Your task to perform on an android device: check android version Image 0: 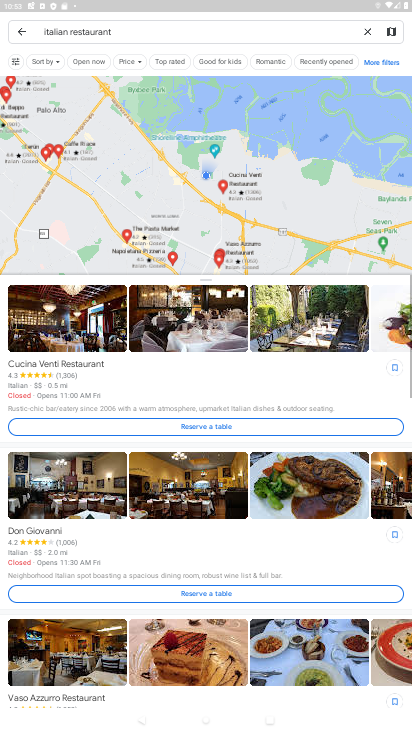
Step 0: press home button
Your task to perform on an android device: check android version Image 1: 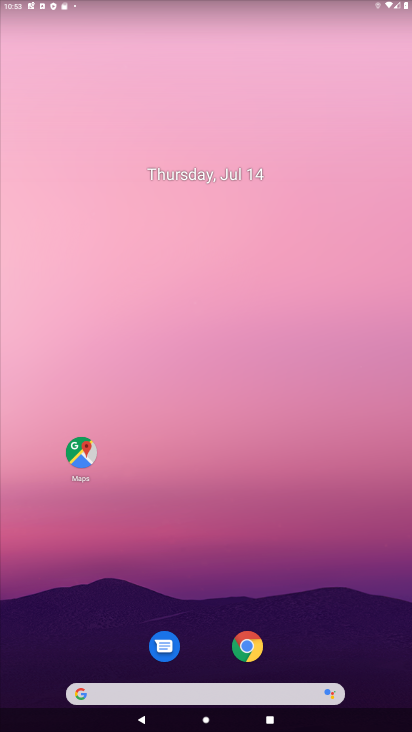
Step 1: drag from (203, 663) to (176, 214)
Your task to perform on an android device: check android version Image 2: 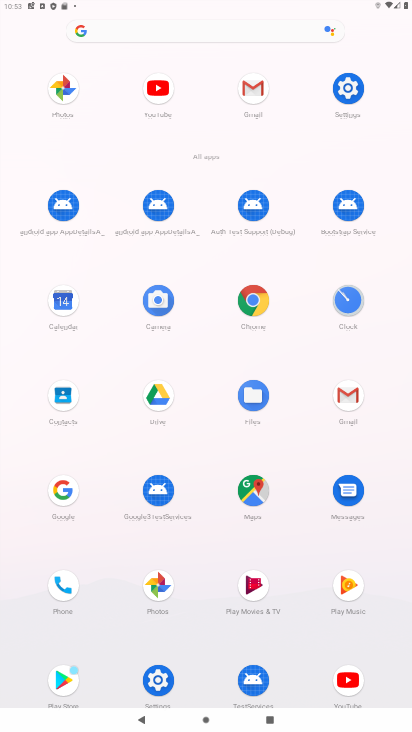
Step 2: click (358, 97)
Your task to perform on an android device: check android version Image 3: 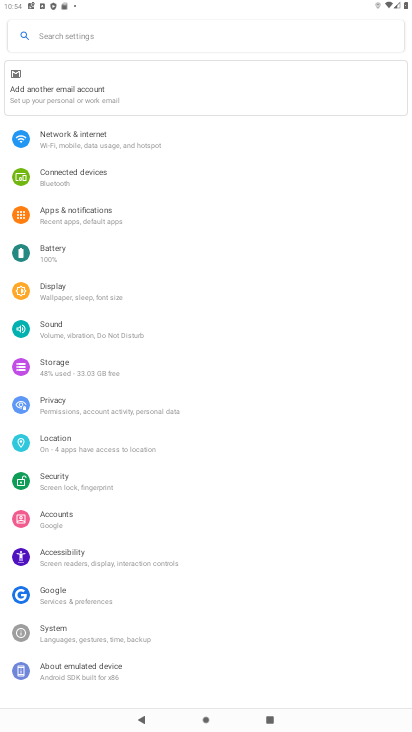
Step 3: click (96, 676)
Your task to perform on an android device: check android version Image 4: 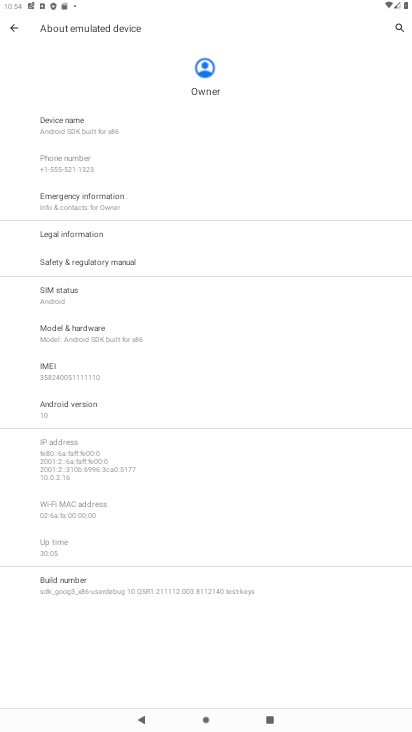
Step 4: click (77, 412)
Your task to perform on an android device: check android version Image 5: 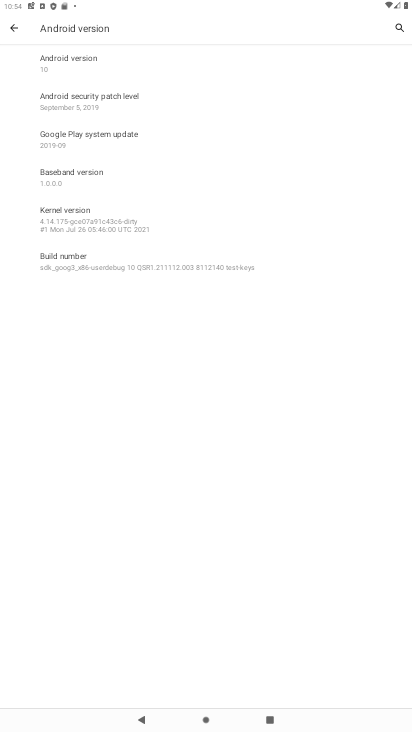
Step 5: click (66, 71)
Your task to perform on an android device: check android version Image 6: 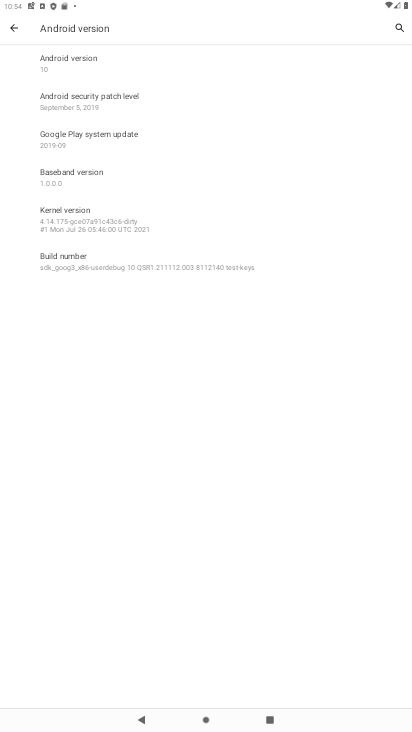
Step 6: task complete